Your task to perform on an android device: turn on translation in the chrome app Image 0: 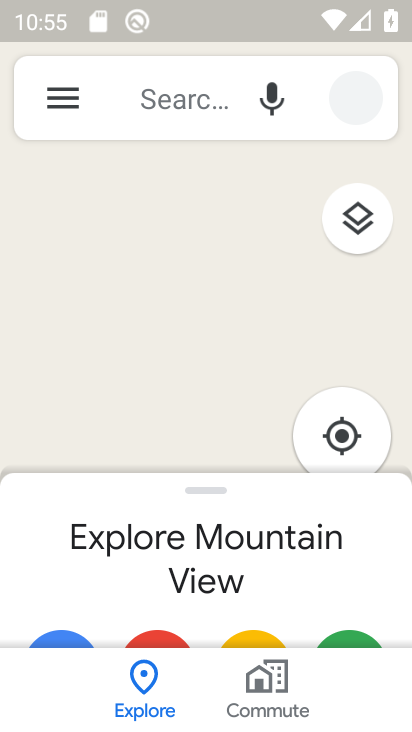
Step 0: press home button
Your task to perform on an android device: turn on translation in the chrome app Image 1: 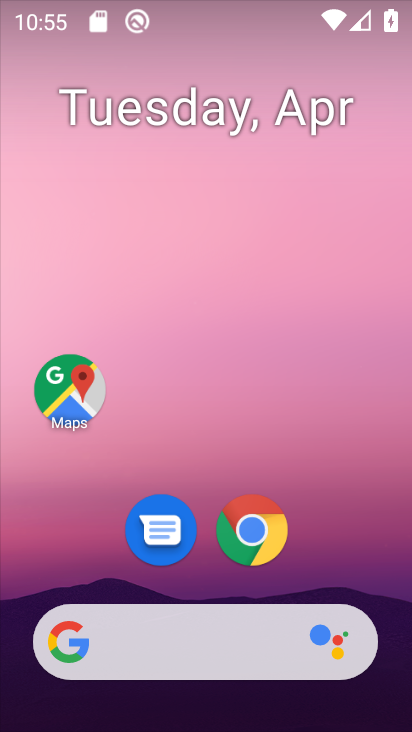
Step 1: drag from (183, 638) to (338, 47)
Your task to perform on an android device: turn on translation in the chrome app Image 2: 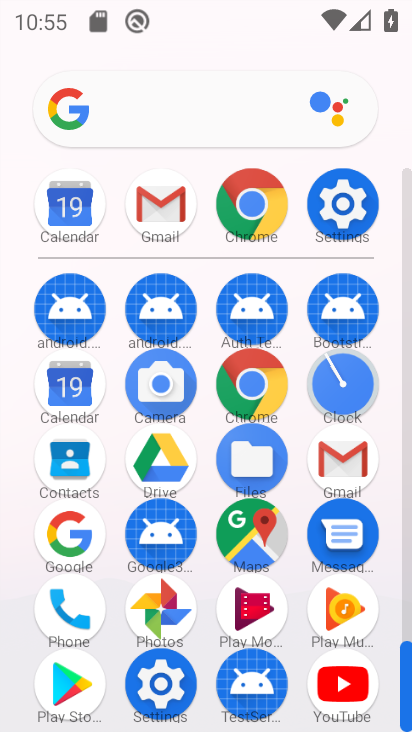
Step 2: click (253, 220)
Your task to perform on an android device: turn on translation in the chrome app Image 3: 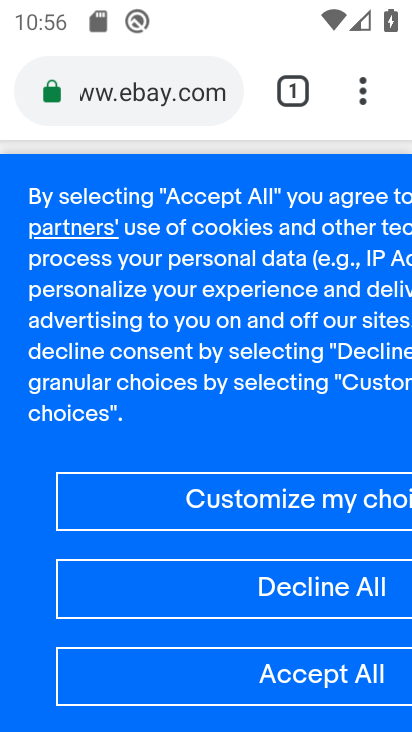
Step 3: click (365, 96)
Your task to perform on an android device: turn on translation in the chrome app Image 4: 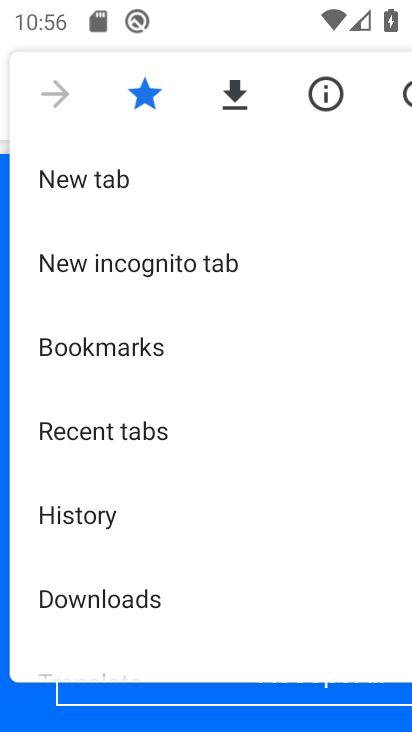
Step 4: drag from (158, 581) to (343, 132)
Your task to perform on an android device: turn on translation in the chrome app Image 5: 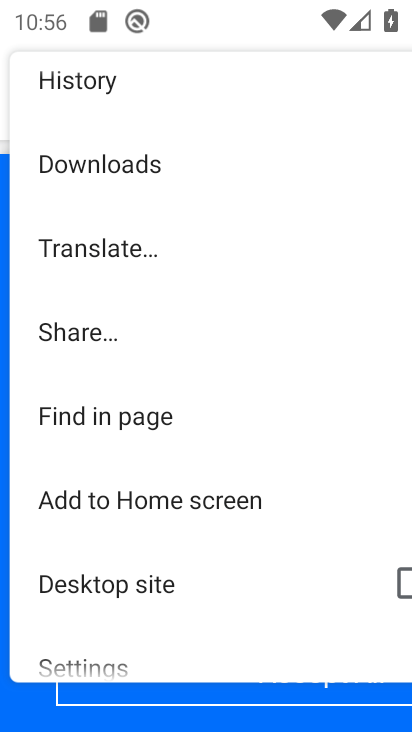
Step 5: drag from (190, 579) to (349, 201)
Your task to perform on an android device: turn on translation in the chrome app Image 6: 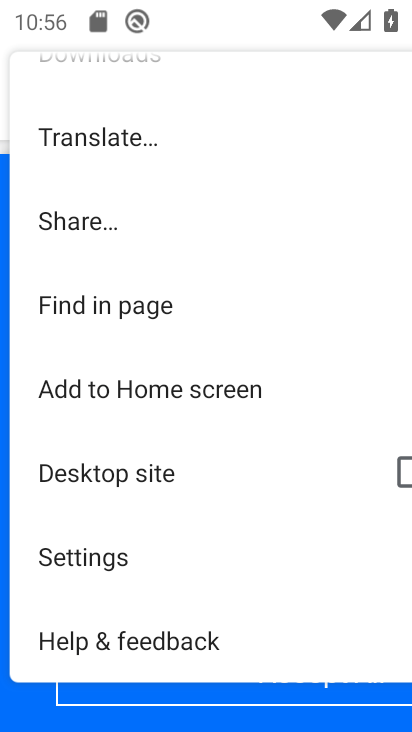
Step 6: click (113, 565)
Your task to perform on an android device: turn on translation in the chrome app Image 7: 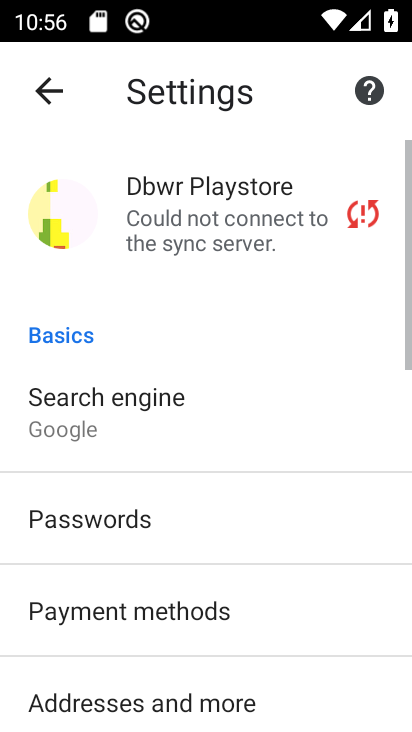
Step 7: drag from (261, 630) to (391, 114)
Your task to perform on an android device: turn on translation in the chrome app Image 8: 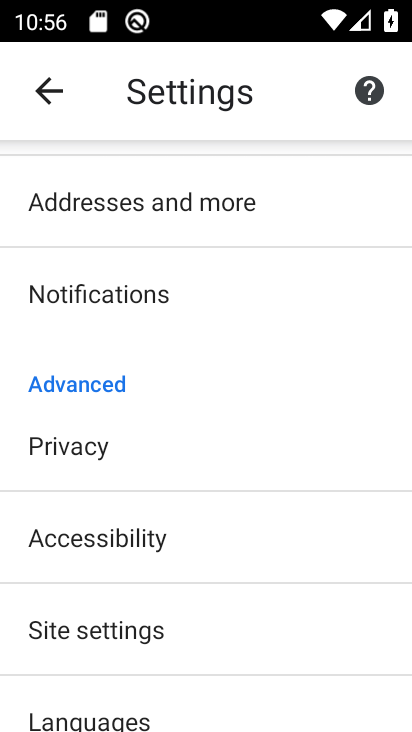
Step 8: drag from (231, 566) to (373, 227)
Your task to perform on an android device: turn on translation in the chrome app Image 9: 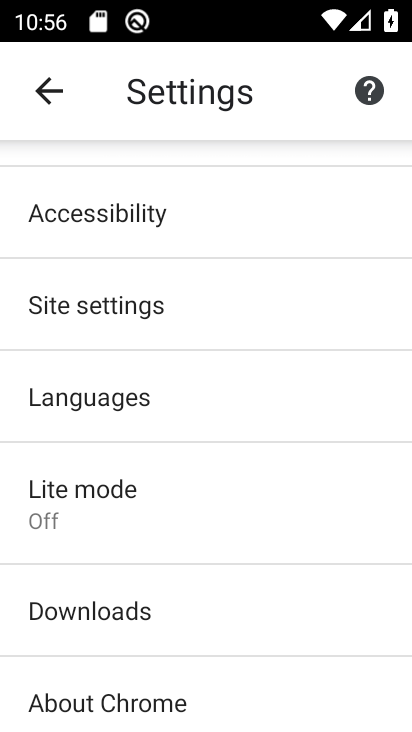
Step 9: click (207, 391)
Your task to perform on an android device: turn on translation in the chrome app Image 10: 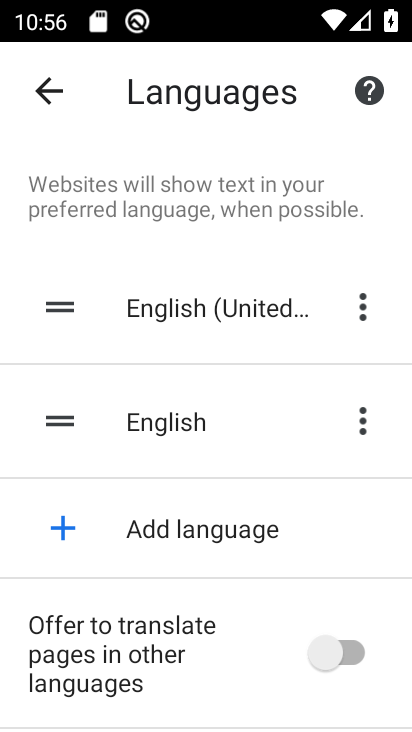
Step 10: click (350, 653)
Your task to perform on an android device: turn on translation in the chrome app Image 11: 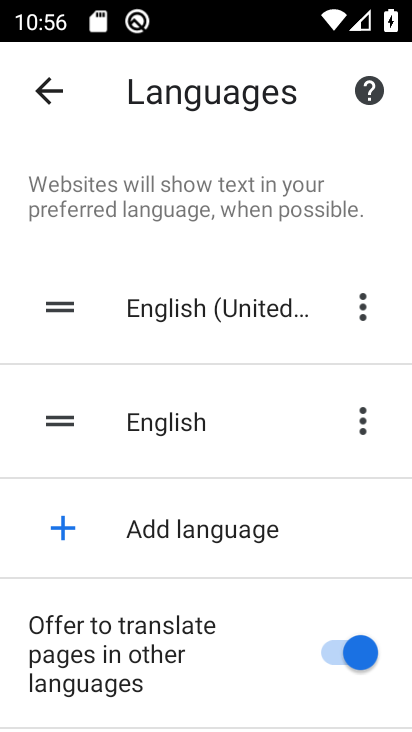
Step 11: task complete